Your task to perform on an android device: turn off wifi Image 0: 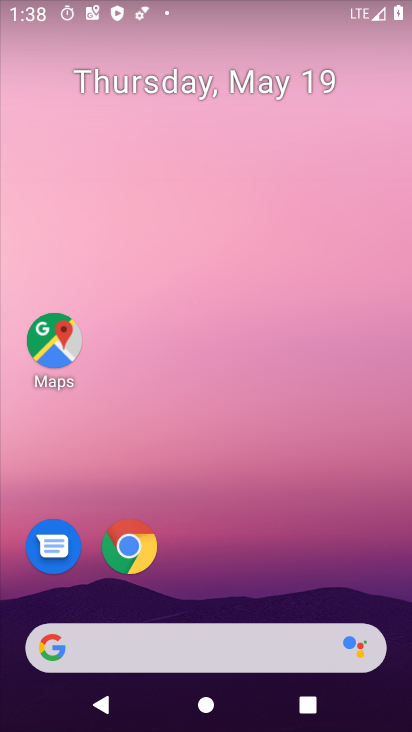
Step 0: drag from (214, 6) to (180, 515)
Your task to perform on an android device: turn off wifi Image 1: 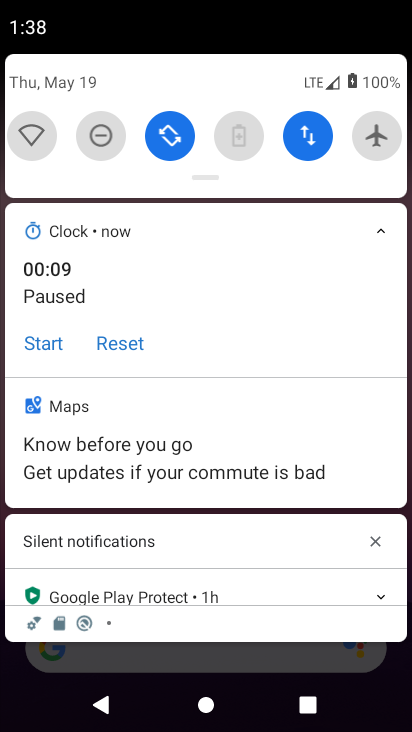
Step 1: task complete